Your task to perform on an android device: open sync settings in chrome Image 0: 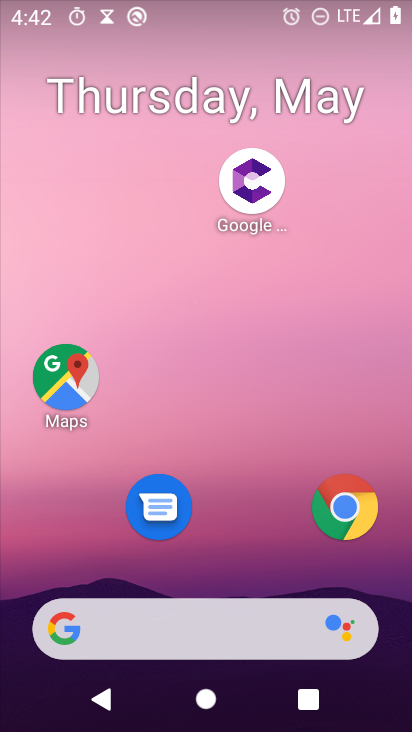
Step 0: click (325, 512)
Your task to perform on an android device: open sync settings in chrome Image 1: 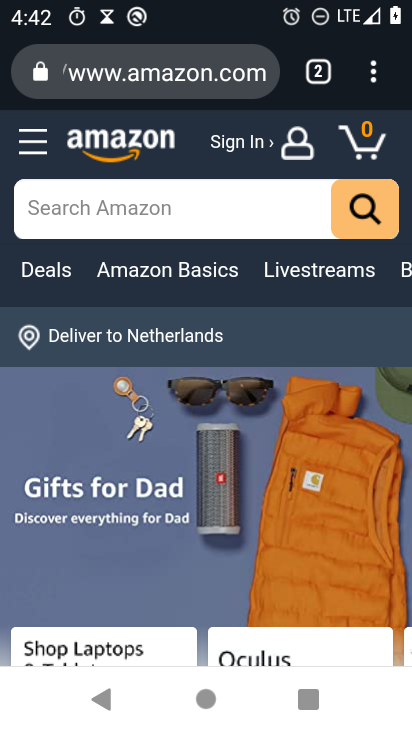
Step 1: click (374, 67)
Your task to perform on an android device: open sync settings in chrome Image 2: 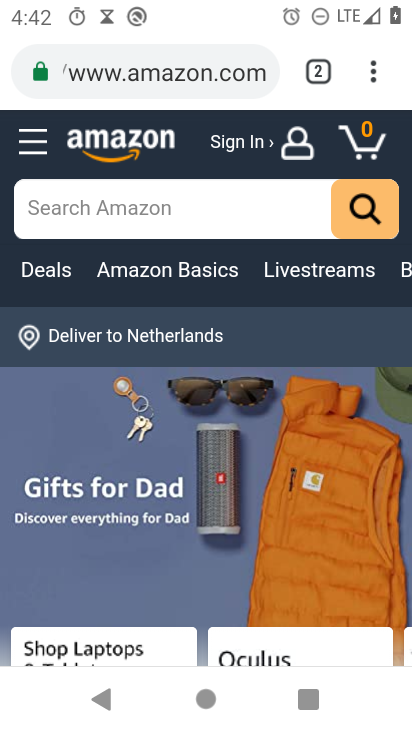
Step 2: click (374, 67)
Your task to perform on an android device: open sync settings in chrome Image 3: 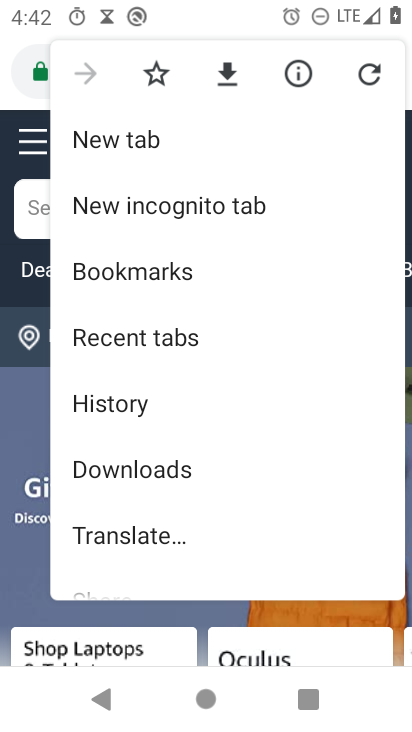
Step 3: drag from (293, 510) to (289, 116)
Your task to perform on an android device: open sync settings in chrome Image 4: 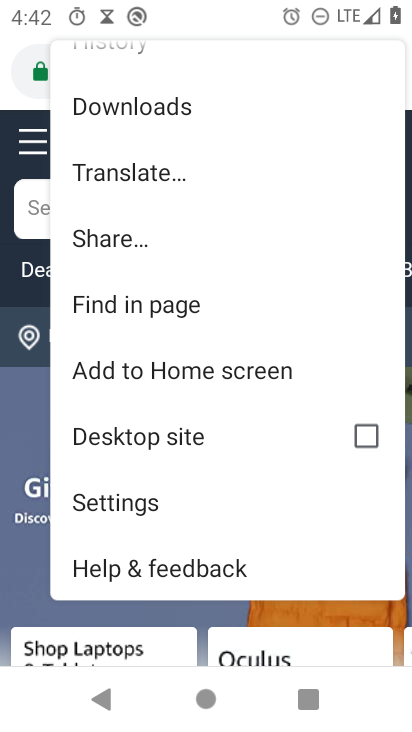
Step 4: click (152, 499)
Your task to perform on an android device: open sync settings in chrome Image 5: 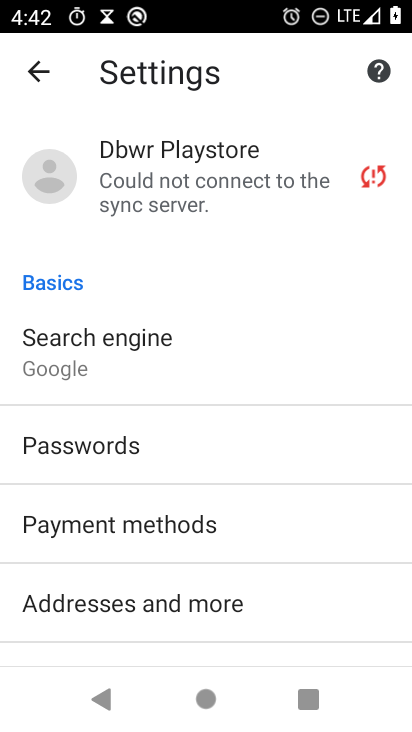
Step 5: click (206, 176)
Your task to perform on an android device: open sync settings in chrome Image 6: 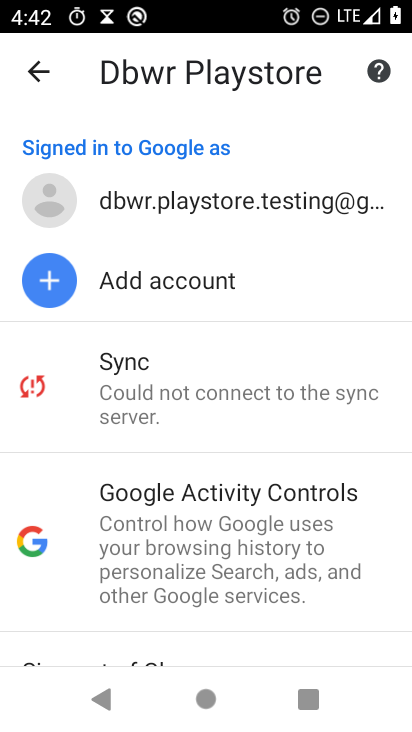
Step 6: click (183, 368)
Your task to perform on an android device: open sync settings in chrome Image 7: 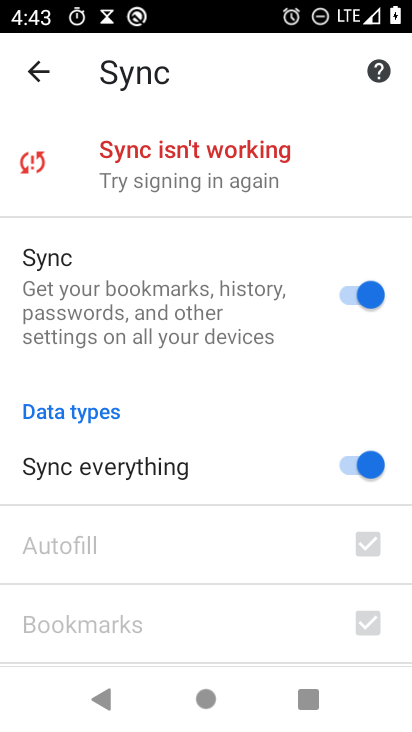
Step 7: task complete